Your task to perform on an android device: refresh tabs in the chrome app Image 0: 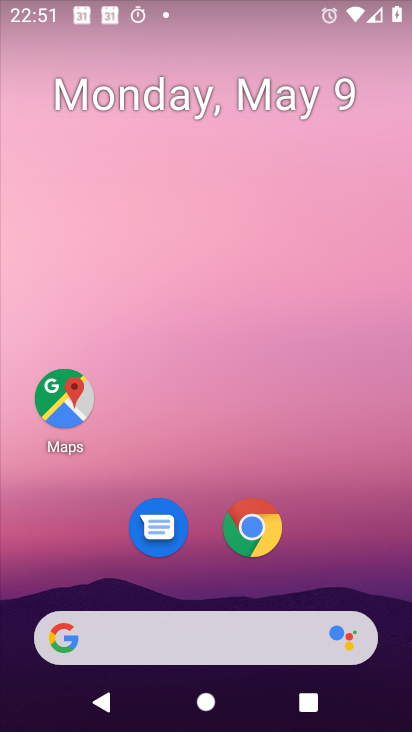
Step 0: click (251, 532)
Your task to perform on an android device: refresh tabs in the chrome app Image 1: 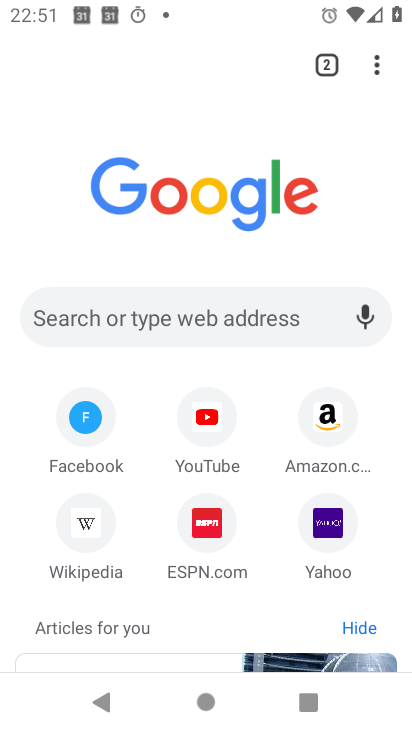
Step 1: click (370, 65)
Your task to perform on an android device: refresh tabs in the chrome app Image 2: 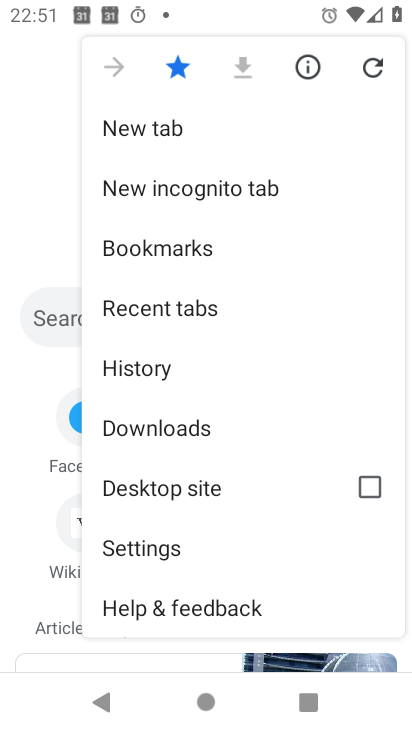
Step 2: click (371, 74)
Your task to perform on an android device: refresh tabs in the chrome app Image 3: 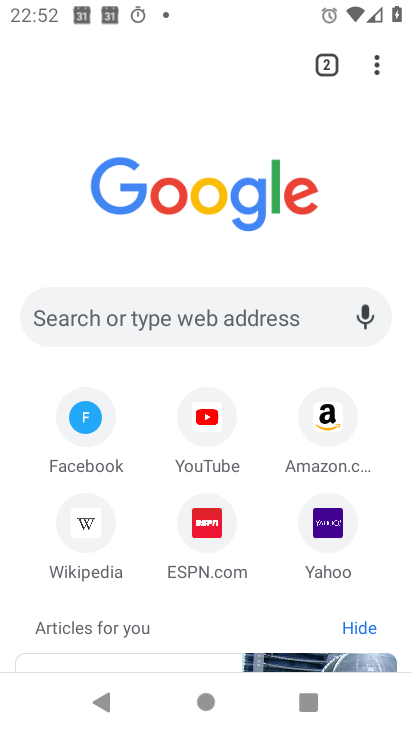
Step 3: task complete